Your task to perform on an android device: turn off notifications settings in the gmail app Image 0: 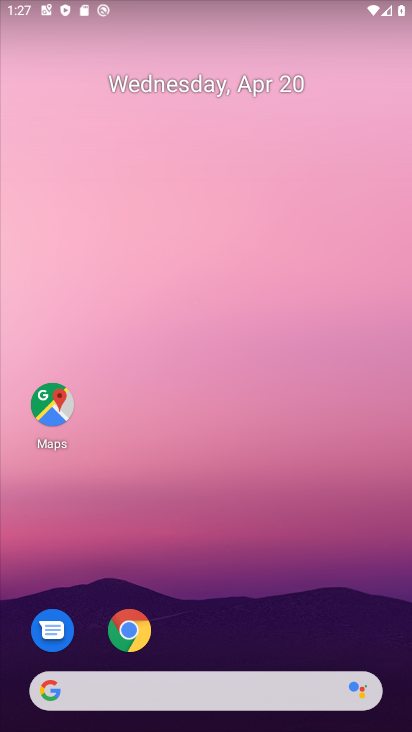
Step 0: drag from (336, 586) to (354, 162)
Your task to perform on an android device: turn off notifications settings in the gmail app Image 1: 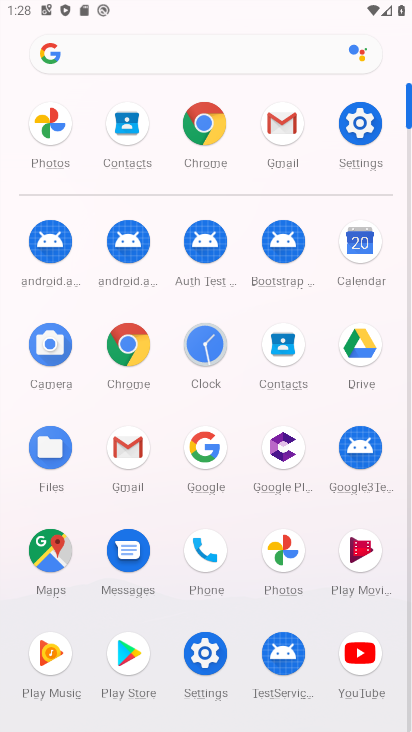
Step 1: click (137, 451)
Your task to perform on an android device: turn off notifications settings in the gmail app Image 2: 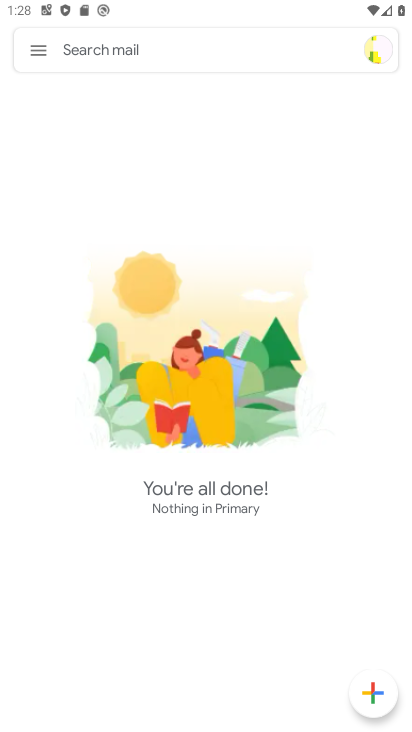
Step 2: click (45, 39)
Your task to perform on an android device: turn off notifications settings in the gmail app Image 3: 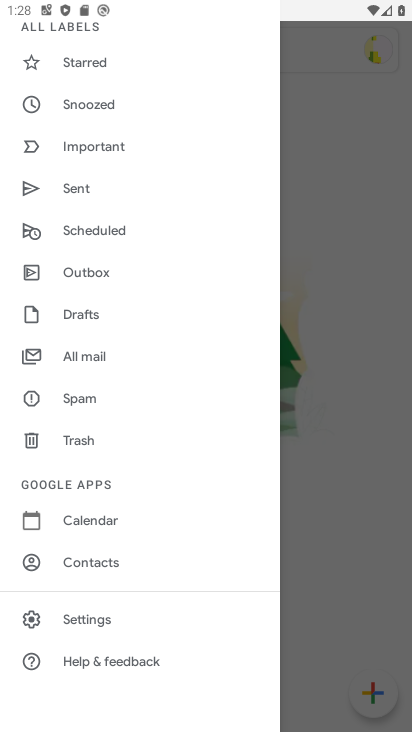
Step 3: click (123, 613)
Your task to perform on an android device: turn off notifications settings in the gmail app Image 4: 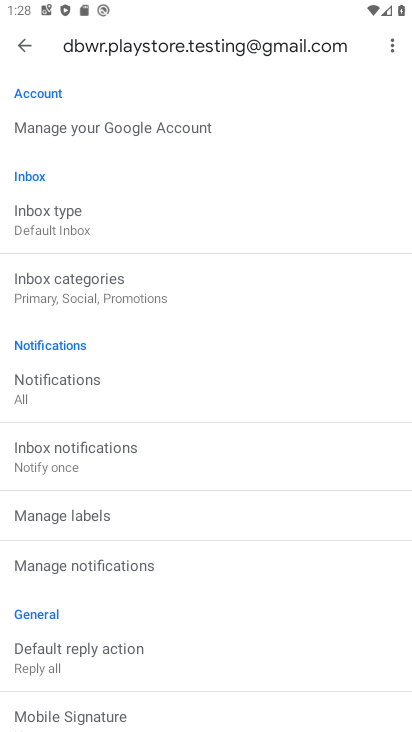
Step 4: click (75, 390)
Your task to perform on an android device: turn off notifications settings in the gmail app Image 5: 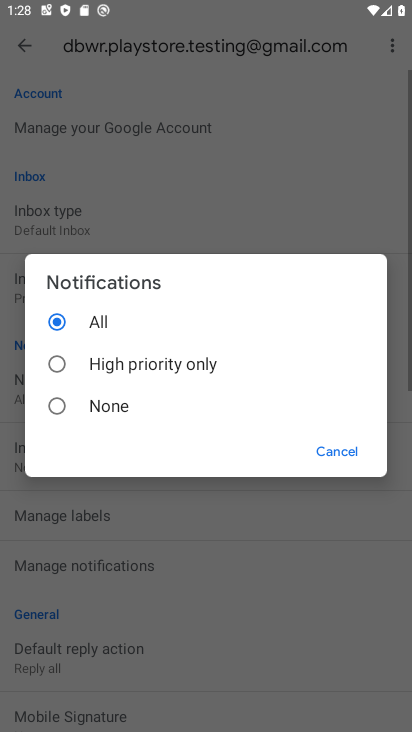
Step 5: click (75, 394)
Your task to perform on an android device: turn off notifications settings in the gmail app Image 6: 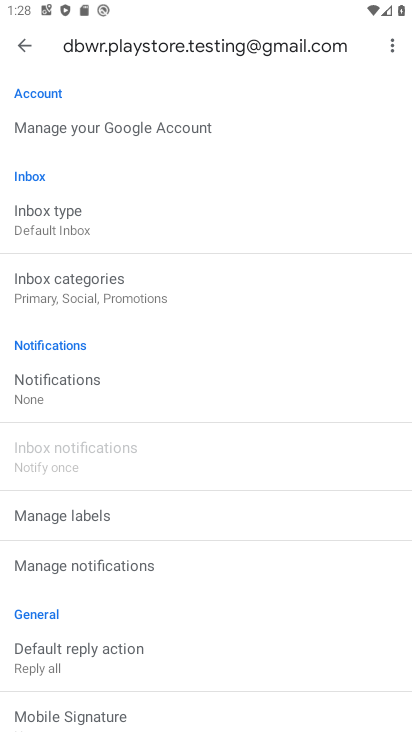
Step 6: task complete